Your task to perform on an android device: check out phone information Image 0: 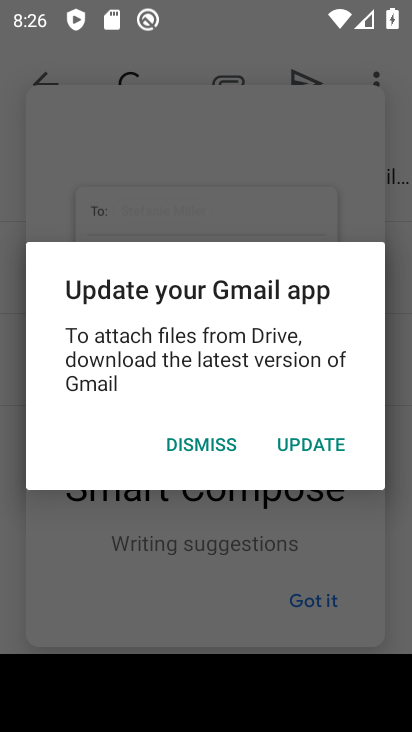
Step 0: press home button
Your task to perform on an android device: check out phone information Image 1: 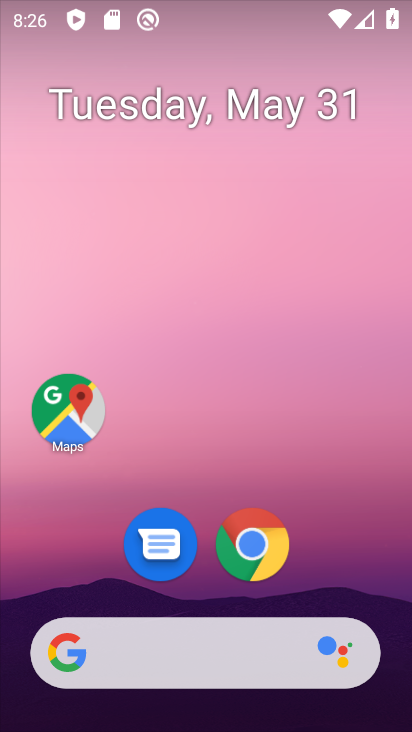
Step 1: drag from (347, 569) to (365, 10)
Your task to perform on an android device: check out phone information Image 2: 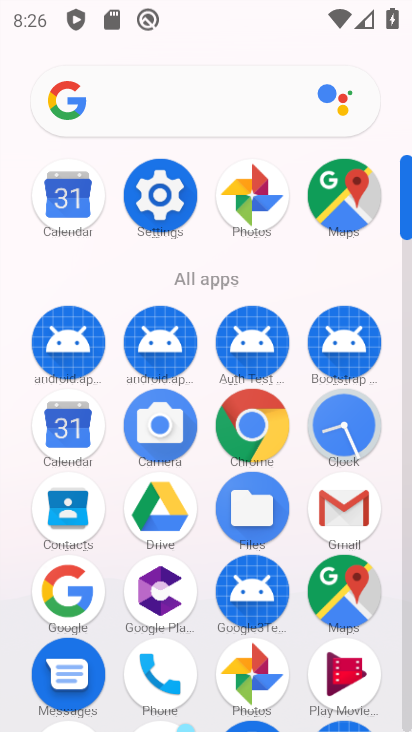
Step 2: click (146, 197)
Your task to perform on an android device: check out phone information Image 3: 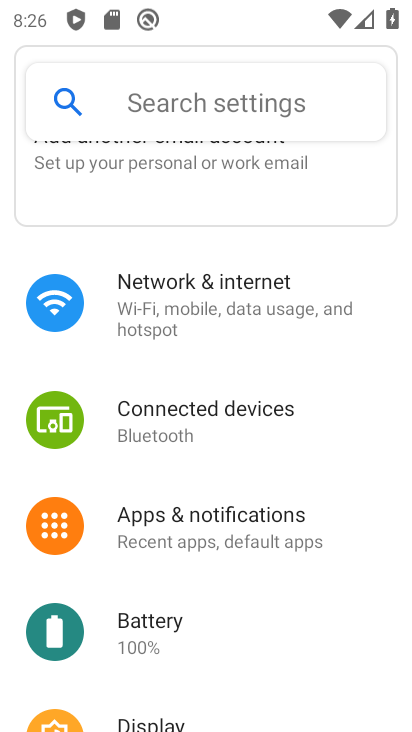
Step 3: drag from (213, 563) to (228, 95)
Your task to perform on an android device: check out phone information Image 4: 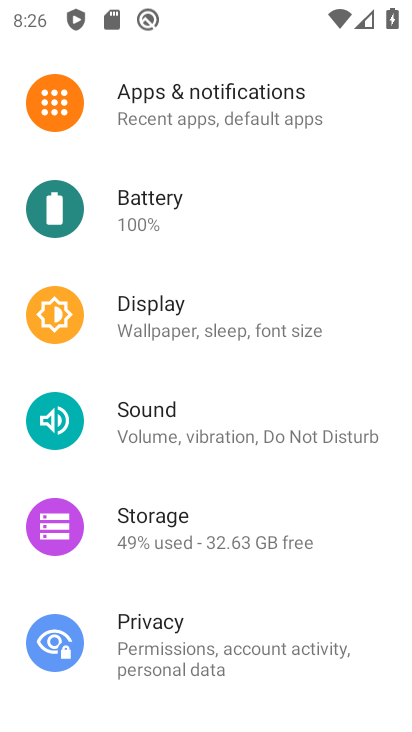
Step 4: drag from (236, 669) to (335, 126)
Your task to perform on an android device: check out phone information Image 5: 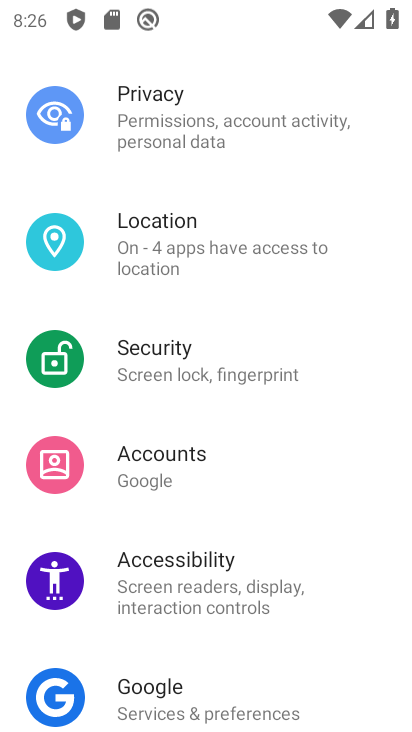
Step 5: drag from (189, 647) to (165, 0)
Your task to perform on an android device: check out phone information Image 6: 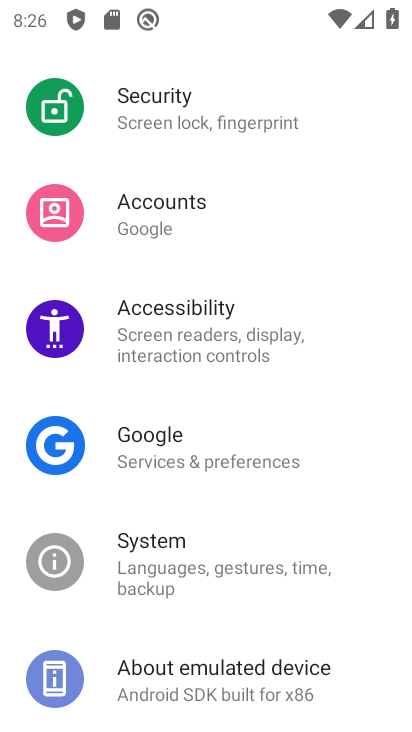
Step 6: click (140, 688)
Your task to perform on an android device: check out phone information Image 7: 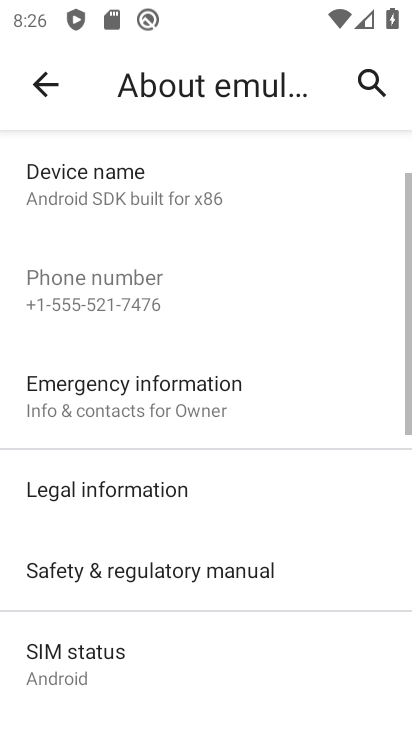
Step 7: task complete